Your task to perform on an android device: Open the web browser Image 0: 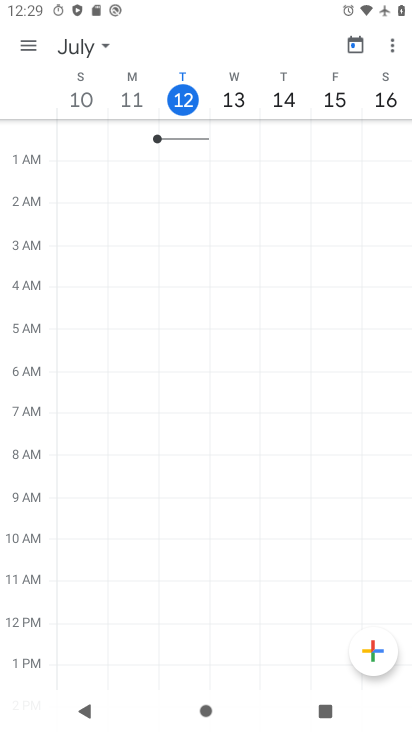
Step 0: press home button
Your task to perform on an android device: Open the web browser Image 1: 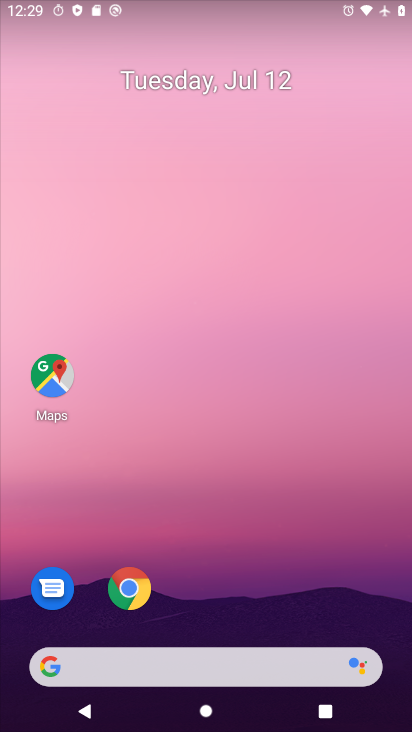
Step 1: click (125, 598)
Your task to perform on an android device: Open the web browser Image 2: 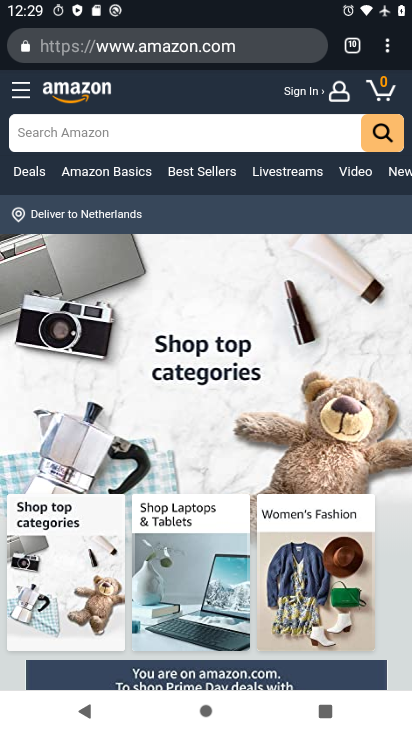
Step 2: task complete